Your task to perform on an android device: Open the calendar app, open the side menu, and click the "Day" option Image 0: 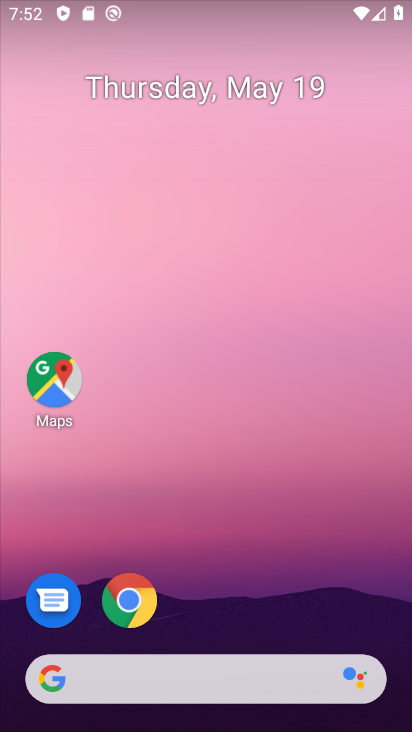
Step 0: drag from (341, 638) to (282, 5)
Your task to perform on an android device: Open the calendar app, open the side menu, and click the "Day" option Image 1: 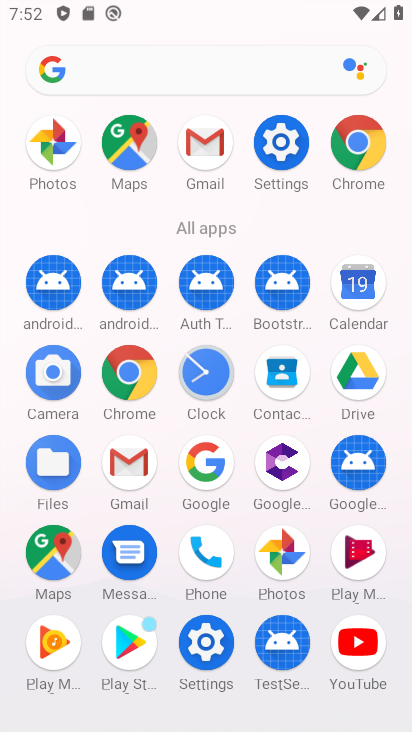
Step 1: click (352, 288)
Your task to perform on an android device: Open the calendar app, open the side menu, and click the "Day" option Image 2: 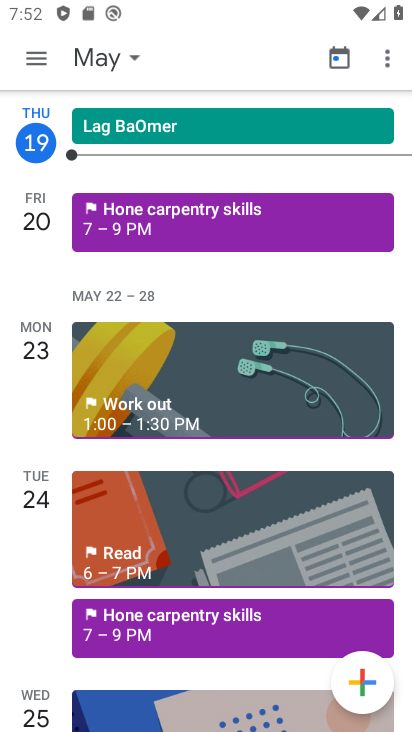
Step 2: click (35, 57)
Your task to perform on an android device: Open the calendar app, open the side menu, and click the "Day" option Image 3: 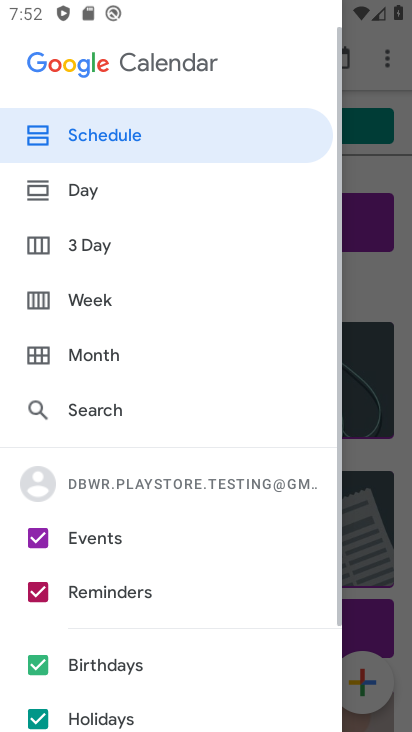
Step 3: click (75, 193)
Your task to perform on an android device: Open the calendar app, open the side menu, and click the "Day" option Image 4: 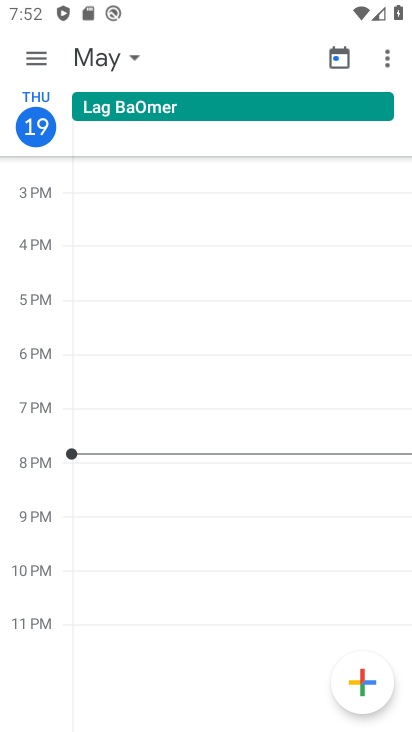
Step 4: task complete